Your task to perform on an android device: Search for cool wooden wall art on Etsy. Image 0: 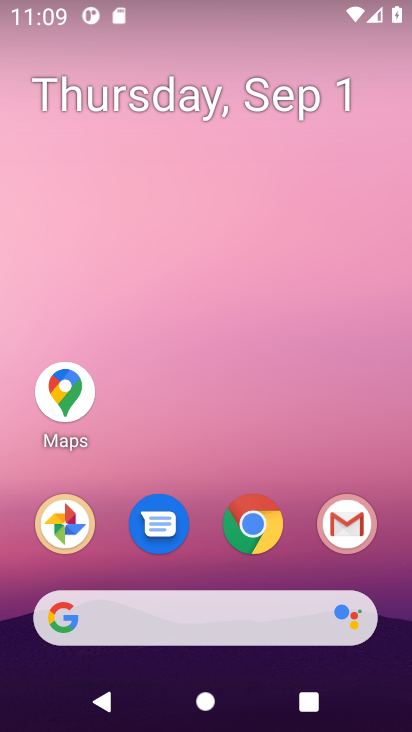
Step 0: drag from (399, 579) to (385, 140)
Your task to perform on an android device: Search for cool wooden wall art on Etsy. Image 1: 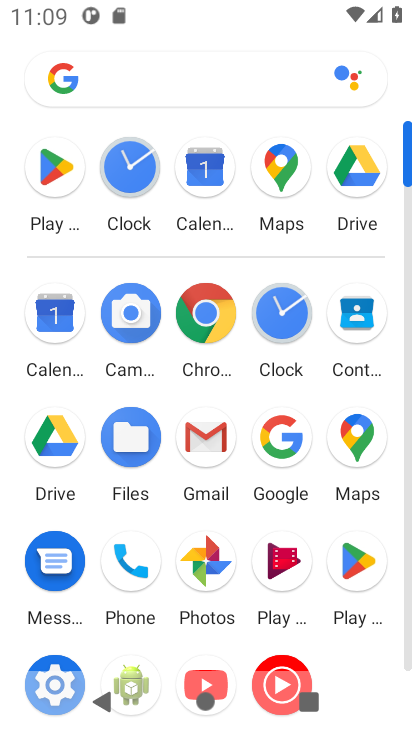
Step 1: click (202, 311)
Your task to perform on an android device: Search for cool wooden wall art on Etsy. Image 2: 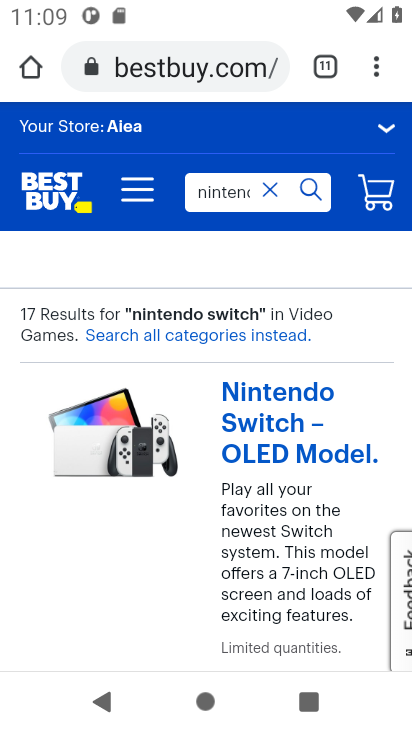
Step 2: click (242, 71)
Your task to perform on an android device: Search for cool wooden wall art on Etsy. Image 3: 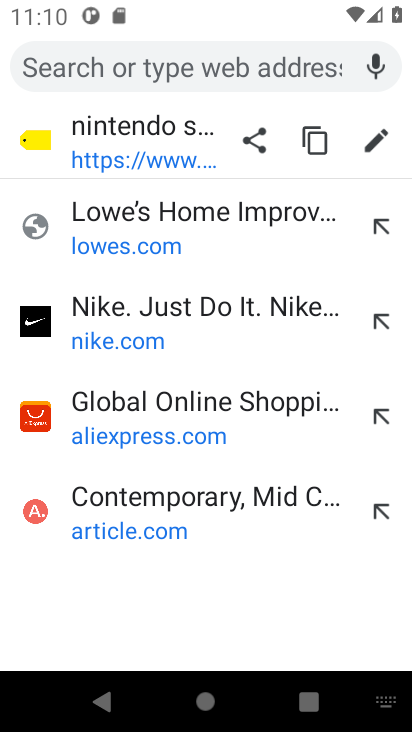
Step 3: press enter
Your task to perform on an android device: Search for cool wooden wall art on Etsy. Image 4: 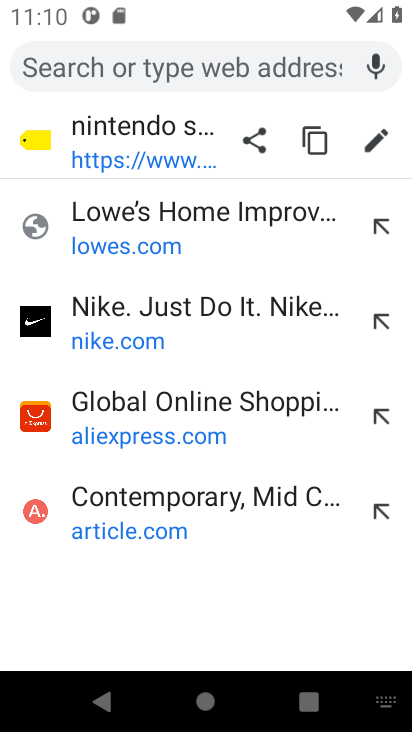
Step 4: type "etsy"
Your task to perform on an android device: Search for cool wooden wall art on Etsy. Image 5: 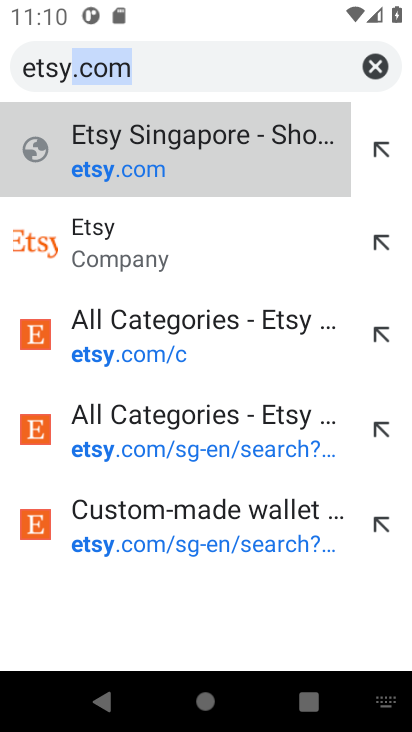
Step 5: click (86, 265)
Your task to perform on an android device: Search for cool wooden wall art on Etsy. Image 6: 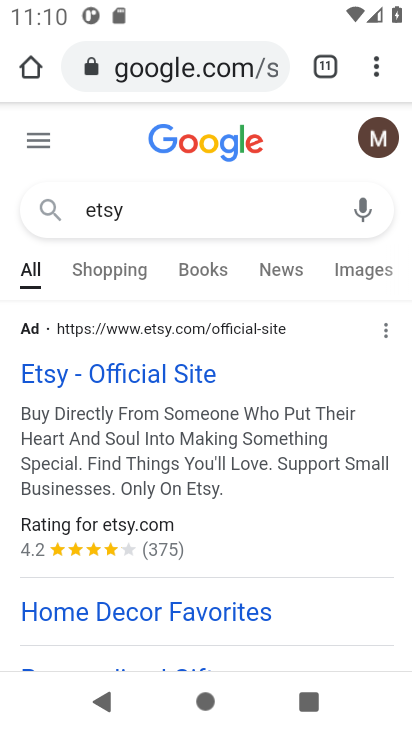
Step 6: click (152, 374)
Your task to perform on an android device: Search for cool wooden wall art on Etsy. Image 7: 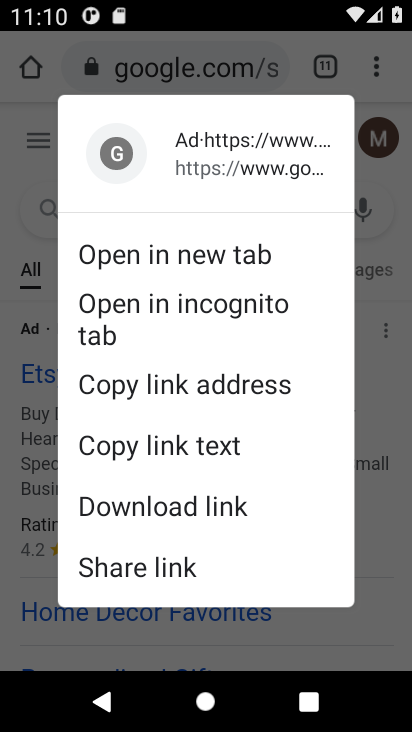
Step 7: click (397, 322)
Your task to perform on an android device: Search for cool wooden wall art on Etsy. Image 8: 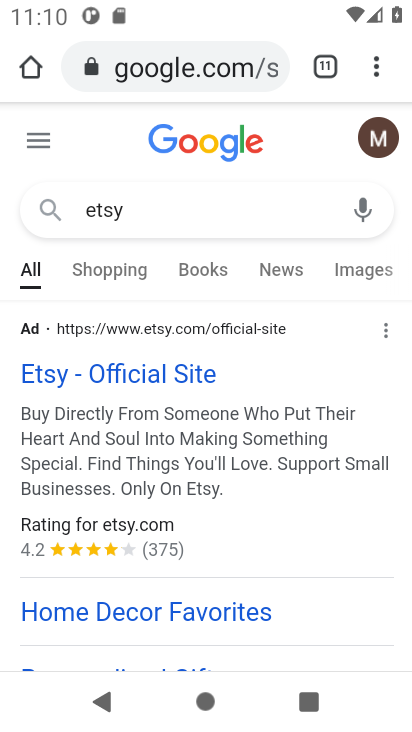
Step 8: click (155, 367)
Your task to perform on an android device: Search for cool wooden wall art on Etsy. Image 9: 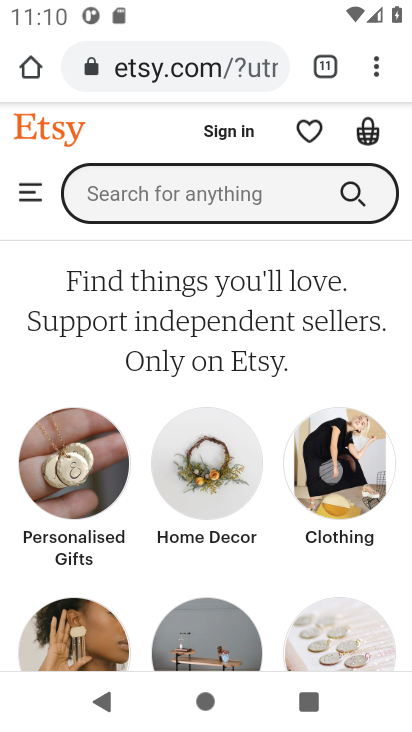
Step 9: click (256, 186)
Your task to perform on an android device: Search for cool wooden wall art on Etsy. Image 10: 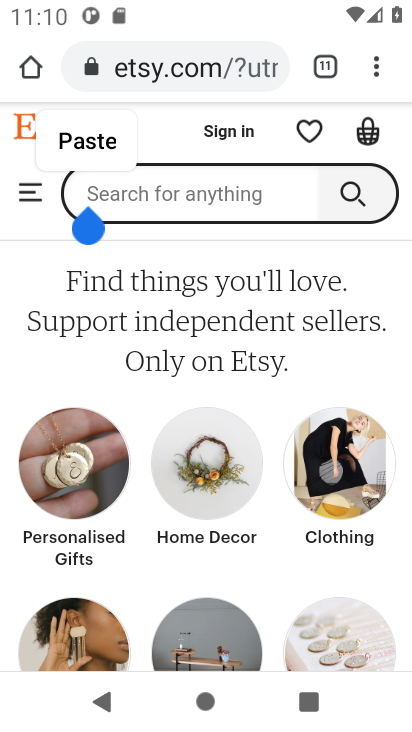
Step 10: press enter
Your task to perform on an android device: Search for cool wooden wall art on Etsy. Image 11: 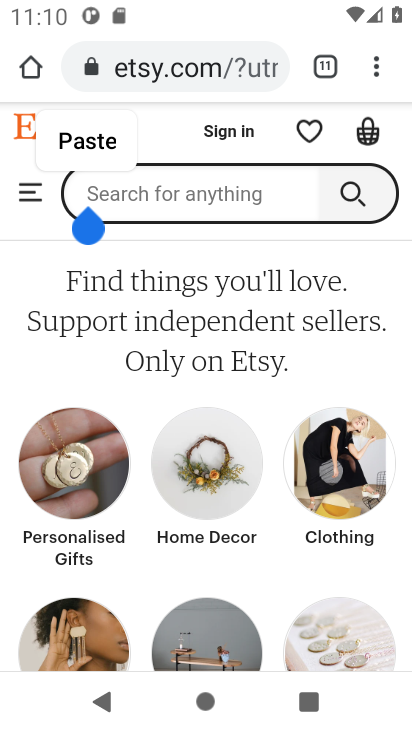
Step 11: type "cool wooden wall art "
Your task to perform on an android device: Search for cool wooden wall art on Etsy. Image 12: 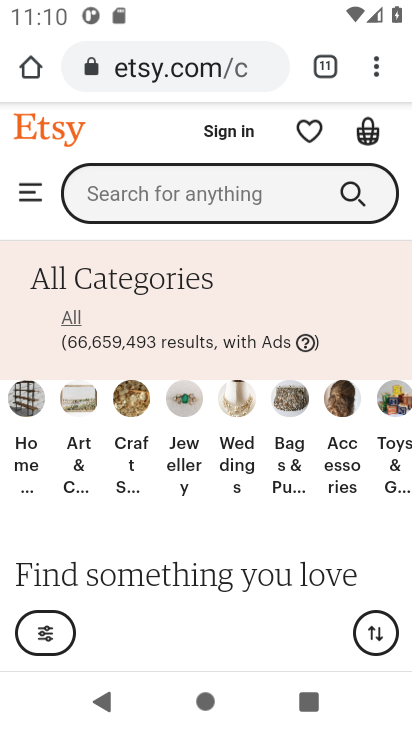
Step 12: click (242, 191)
Your task to perform on an android device: Search for cool wooden wall art on Etsy. Image 13: 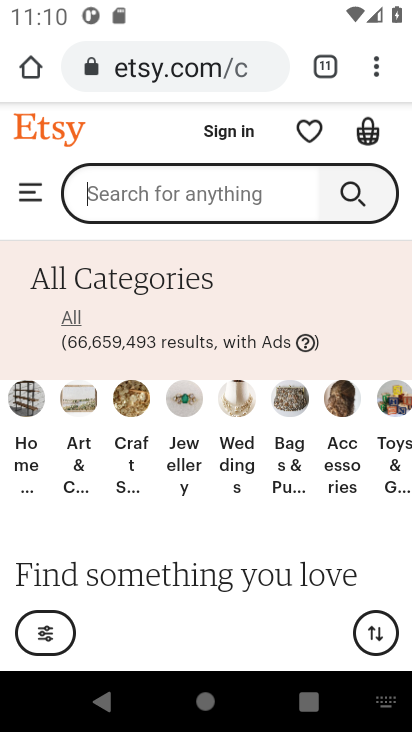
Step 13: press enter
Your task to perform on an android device: Search for cool wooden wall art on Etsy. Image 14: 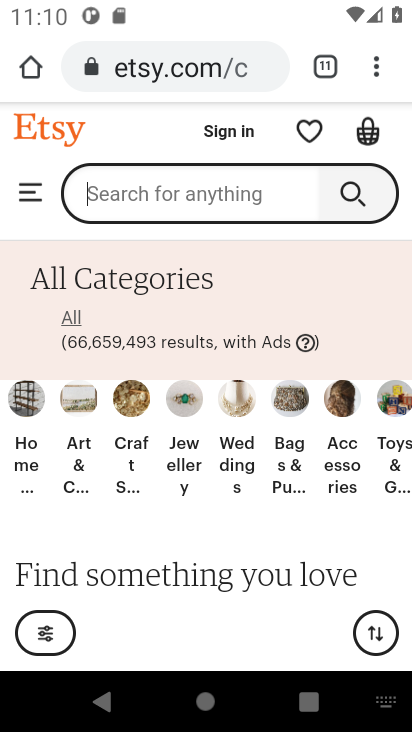
Step 14: type "cool wooden wall art "
Your task to perform on an android device: Search for cool wooden wall art on Etsy. Image 15: 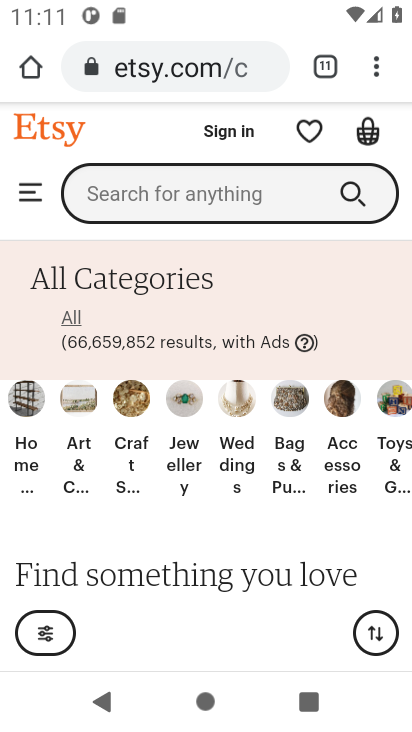
Step 15: task complete